Your task to perform on an android device: turn pop-ups on in chrome Image 0: 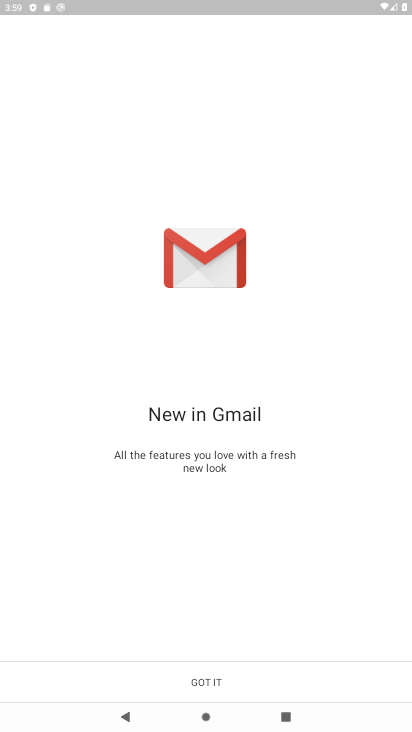
Step 0: press home button
Your task to perform on an android device: turn pop-ups on in chrome Image 1: 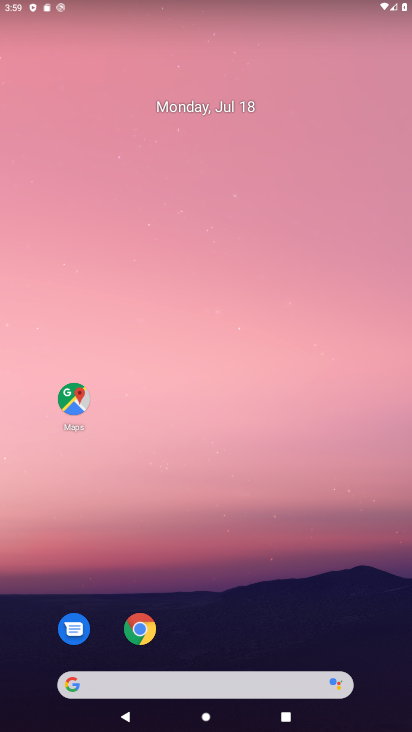
Step 1: drag from (325, 22) to (293, 506)
Your task to perform on an android device: turn pop-ups on in chrome Image 2: 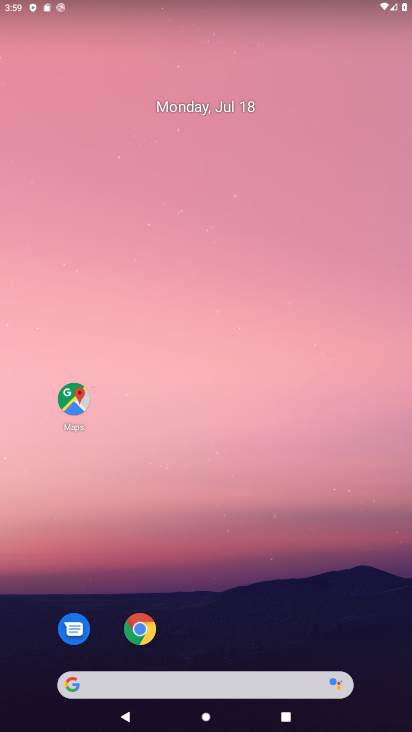
Step 2: click (139, 638)
Your task to perform on an android device: turn pop-ups on in chrome Image 3: 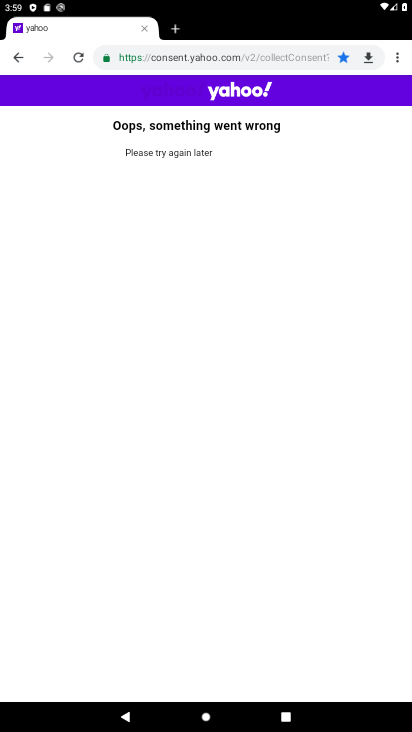
Step 3: drag from (396, 56) to (301, 352)
Your task to perform on an android device: turn pop-ups on in chrome Image 4: 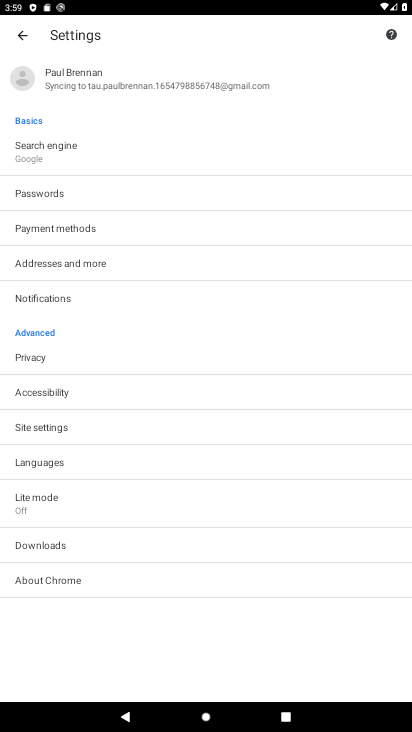
Step 4: click (89, 422)
Your task to perform on an android device: turn pop-ups on in chrome Image 5: 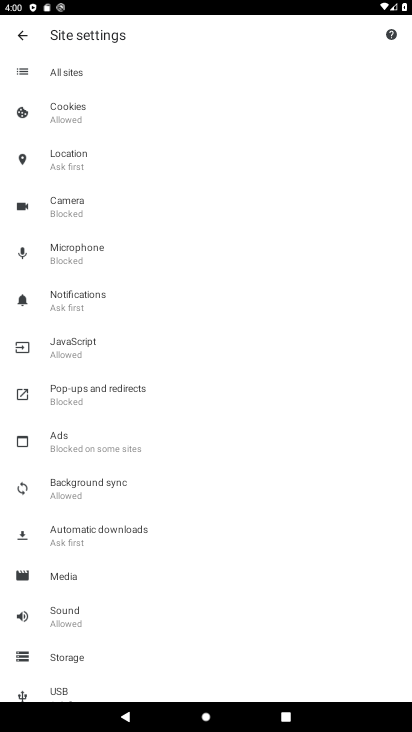
Step 5: click (177, 398)
Your task to perform on an android device: turn pop-ups on in chrome Image 6: 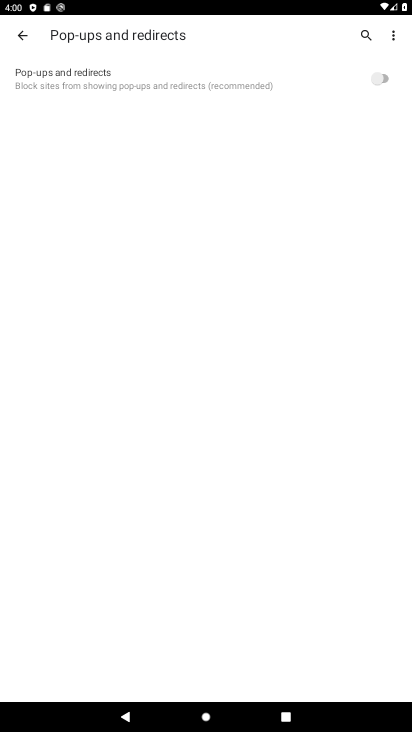
Step 6: click (387, 81)
Your task to perform on an android device: turn pop-ups on in chrome Image 7: 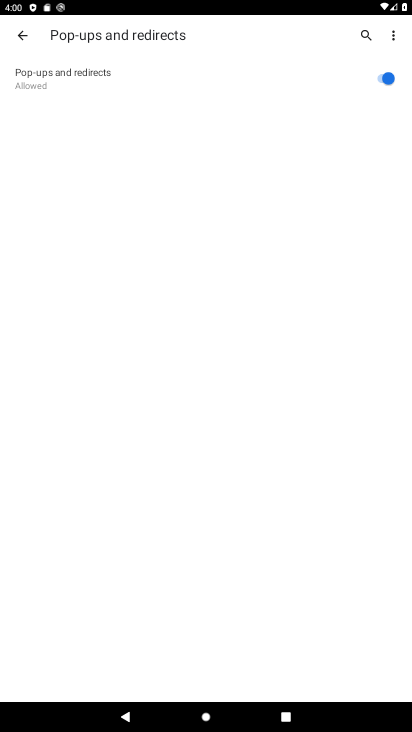
Step 7: task complete